Your task to perform on an android device: change alarm snooze length Image 0: 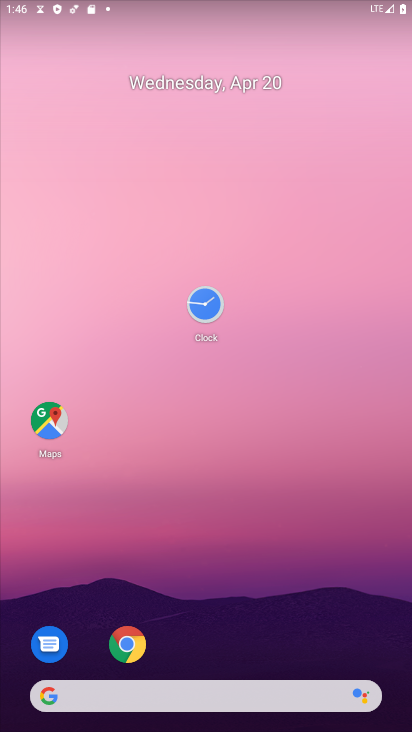
Step 0: drag from (312, 669) to (316, 9)
Your task to perform on an android device: change alarm snooze length Image 1: 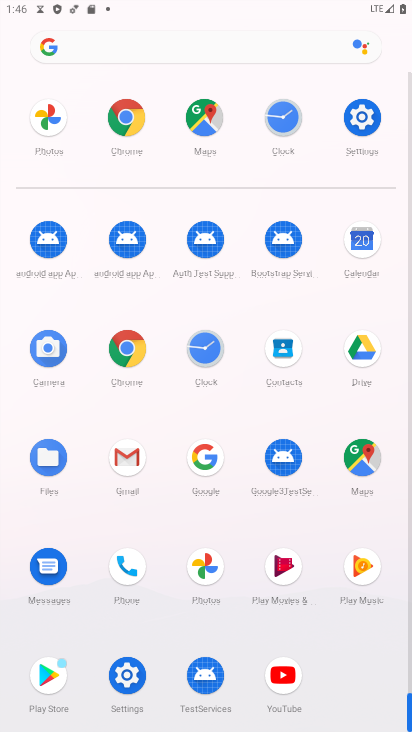
Step 1: click (208, 352)
Your task to perform on an android device: change alarm snooze length Image 2: 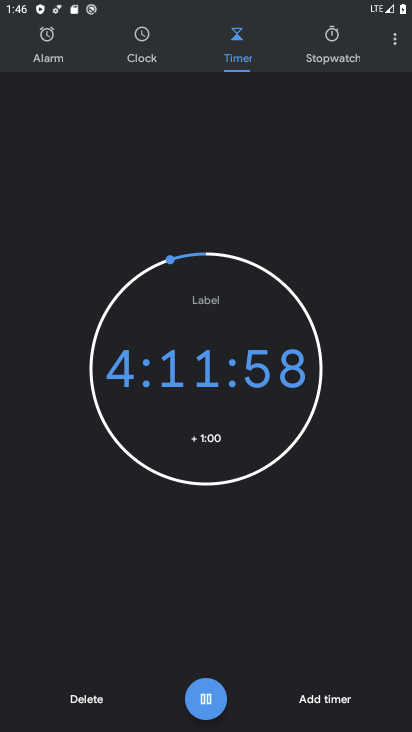
Step 2: click (390, 43)
Your task to perform on an android device: change alarm snooze length Image 3: 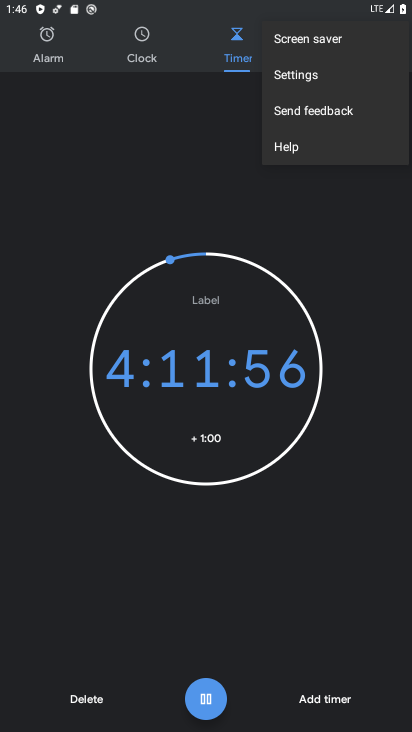
Step 3: click (349, 75)
Your task to perform on an android device: change alarm snooze length Image 4: 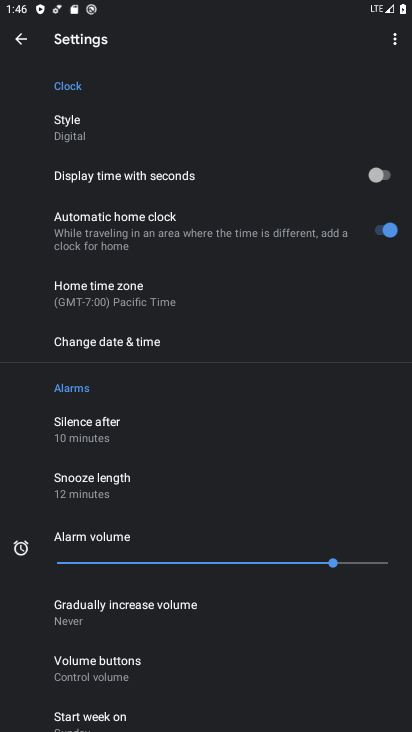
Step 4: click (123, 495)
Your task to perform on an android device: change alarm snooze length Image 5: 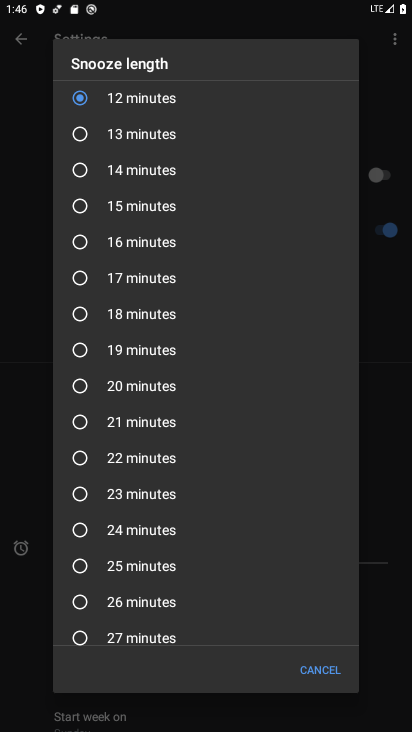
Step 5: drag from (118, 166) to (134, 435)
Your task to perform on an android device: change alarm snooze length Image 6: 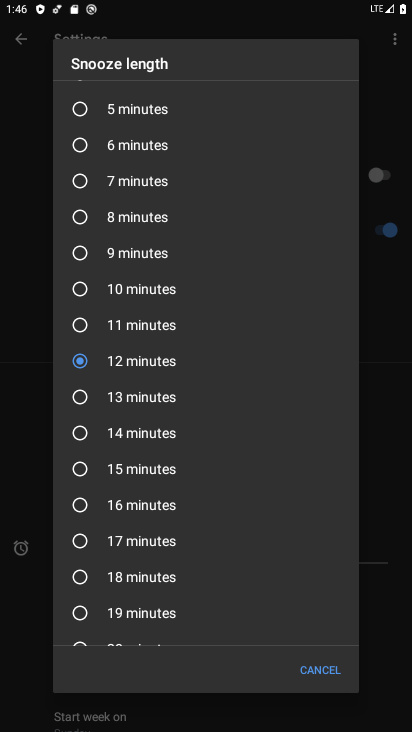
Step 6: click (78, 114)
Your task to perform on an android device: change alarm snooze length Image 7: 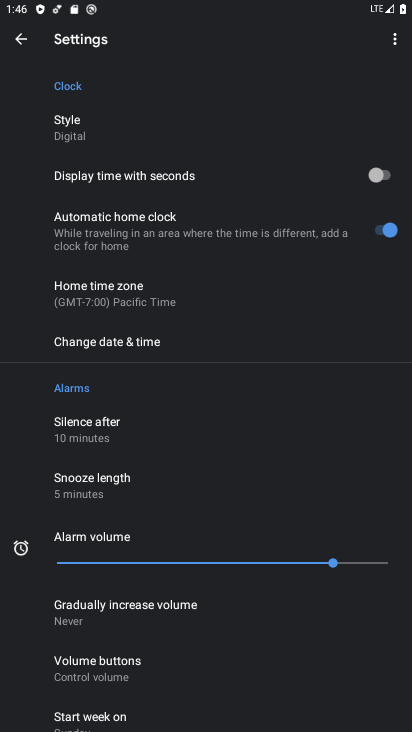
Step 7: task complete